Your task to perform on an android device: move a message to another label in the gmail app Image 0: 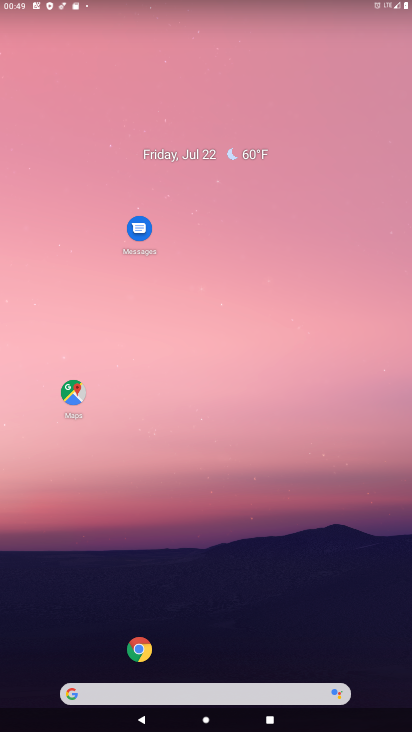
Step 0: click (331, 121)
Your task to perform on an android device: move a message to another label in the gmail app Image 1: 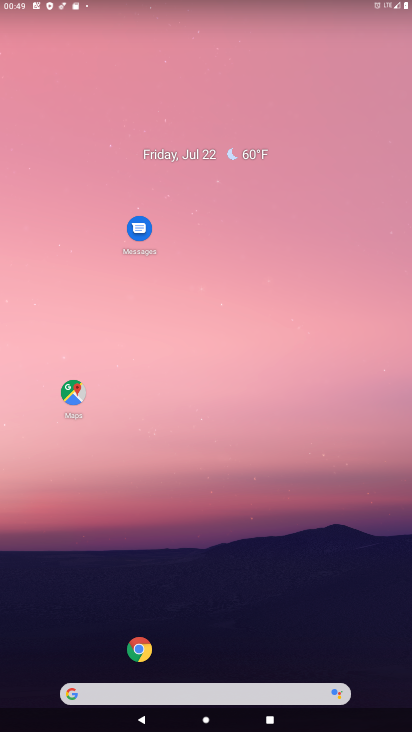
Step 1: drag from (18, 689) to (345, 9)
Your task to perform on an android device: move a message to another label in the gmail app Image 2: 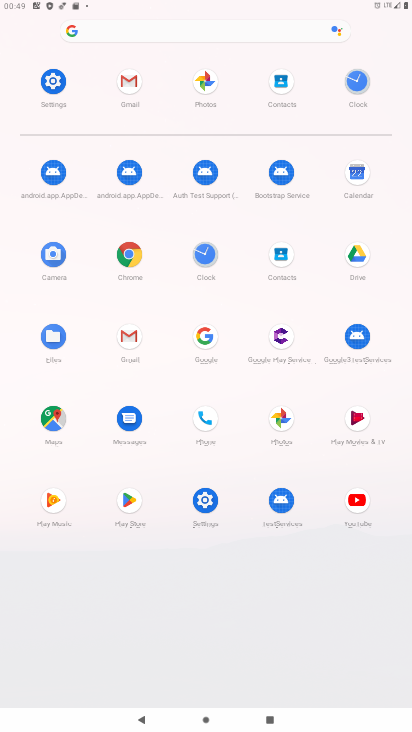
Step 2: click (139, 347)
Your task to perform on an android device: move a message to another label in the gmail app Image 3: 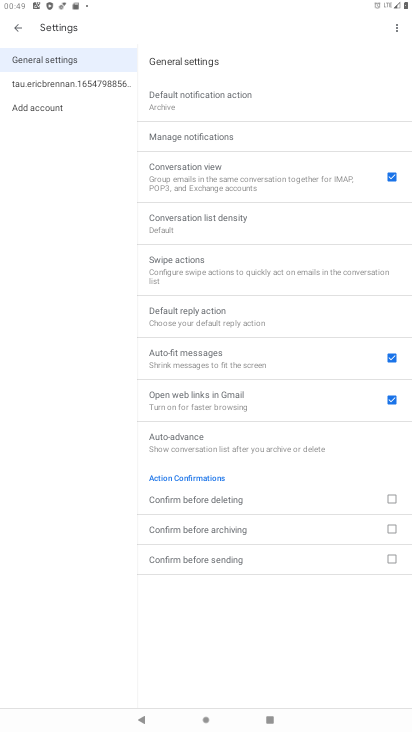
Step 3: click (22, 34)
Your task to perform on an android device: move a message to another label in the gmail app Image 4: 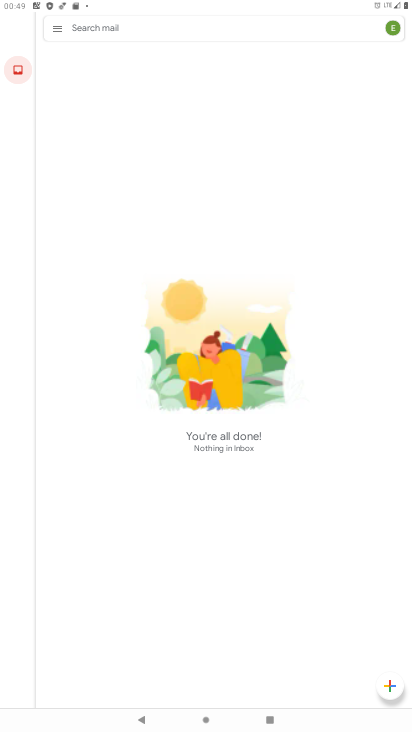
Step 4: click (56, 25)
Your task to perform on an android device: move a message to another label in the gmail app Image 5: 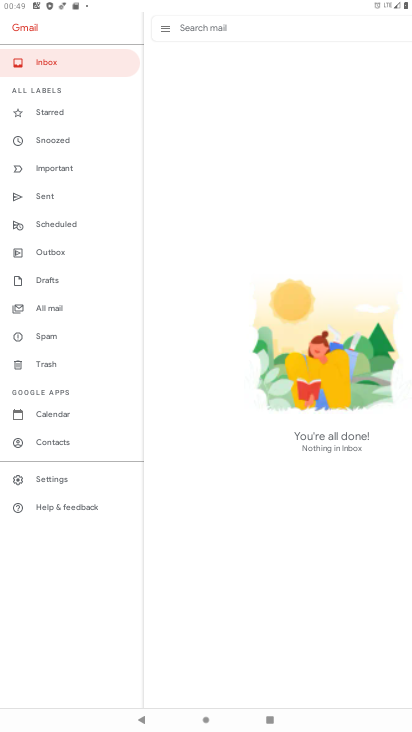
Step 5: click (57, 57)
Your task to perform on an android device: move a message to another label in the gmail app Image 6: 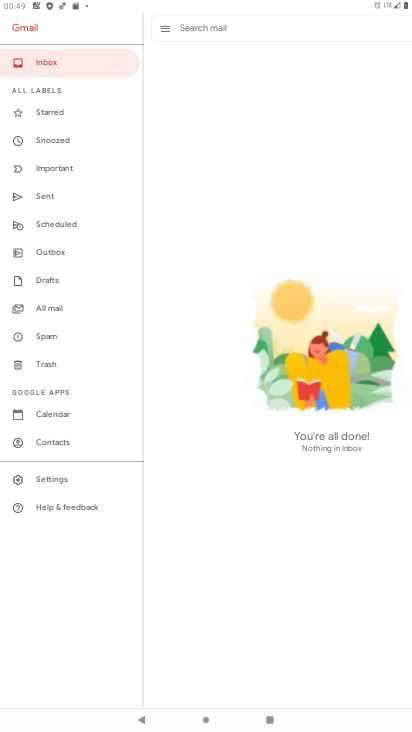
Step 6: task complete